Your task to perform on an android device: Open Youtube and go to the subscriptions tab Image 0: 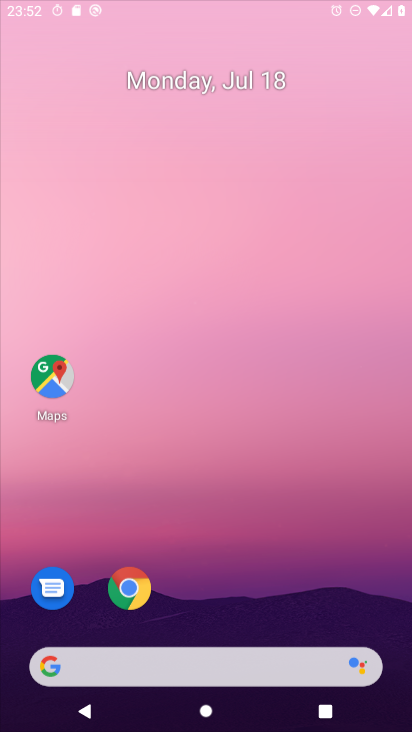
Step 0: click (318, 25)
Your task to perform on an android device: Open Youtube and go to the subscriptions tab Image 1: 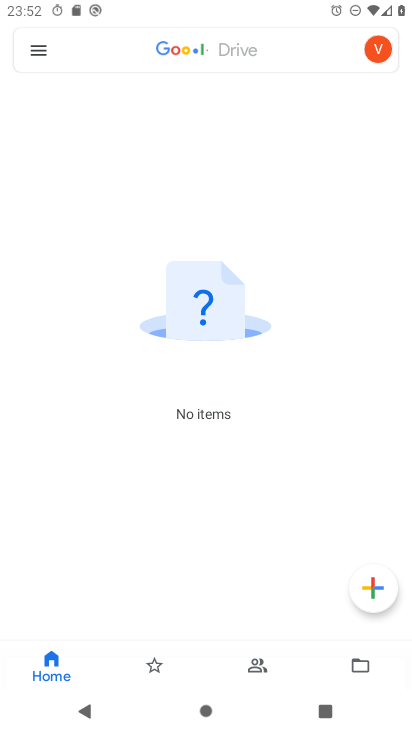
Step 1: drag from (212, 662) to (354, 104)
Your task to perform on an android device: Open Youtube and go to the subscriptions tab Image 2: 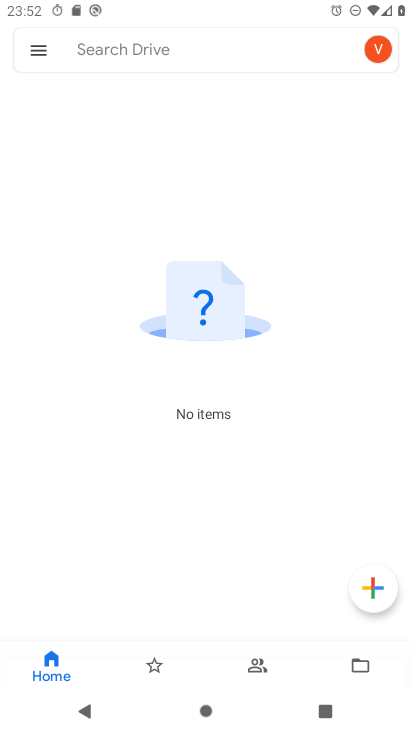
Step 2: press home button
Your task to perform on an android device: Open Youtube and go to the subscriptions tab Image 3: 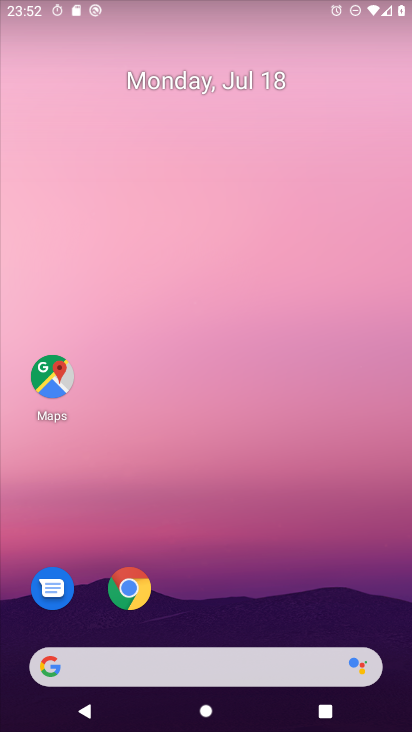
Step 3: drag from (182, 674) to (341, 107)
Your task to perform on an android device: Open Youtube and go to the subscriptions tab Image 4: 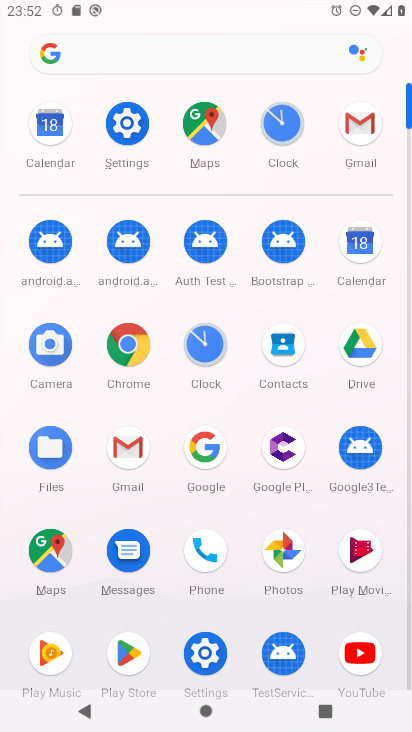
Step 4: click (359, 652)
Your task to perform on an android device: Open Youtube and go to the subscriptions tab Image 5: 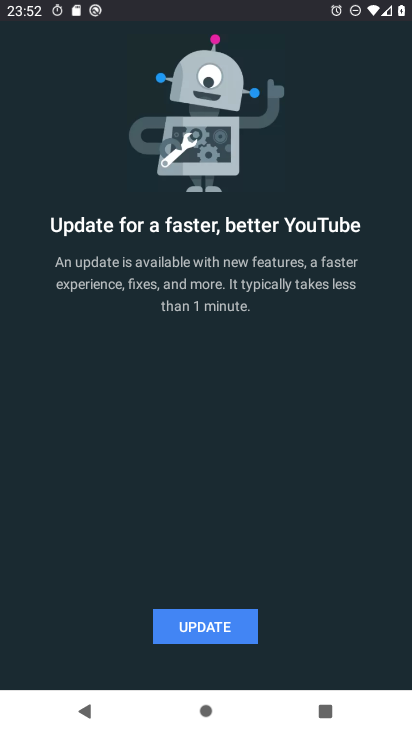
Step 5: click (221, 631)
Your task to perform on an android device: Open Youtube and go to the subscriptions tab Image 6: 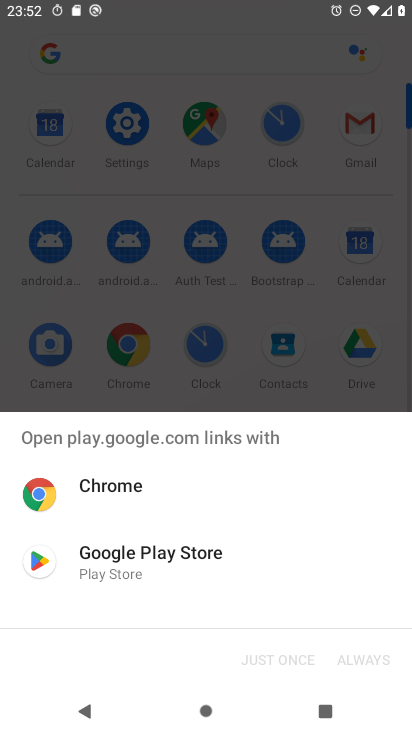
Step 6: click (147, 560)
Your task to perform on an android device: Open Youtube and go to the subscriptions tab Image 7: 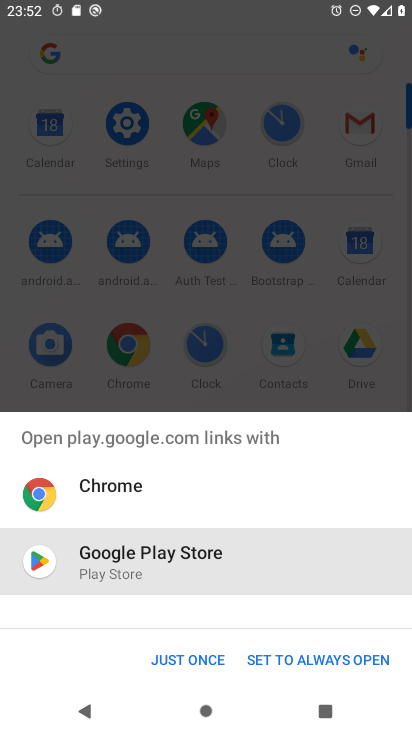
Step 7: click (178, 655)
Your task to perform on an android device: Open Youtube and go to the subscriptions tab Image 8: 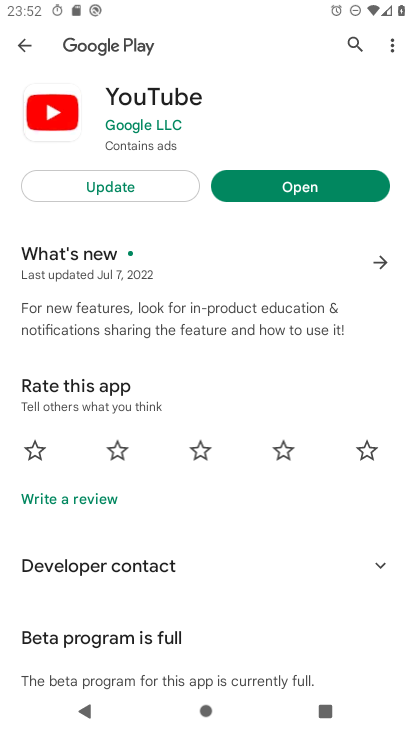
Step 8: click (137, 182)
Your task to perform on an android device: Open Youtube and go to the subscriptions tab Image 9: 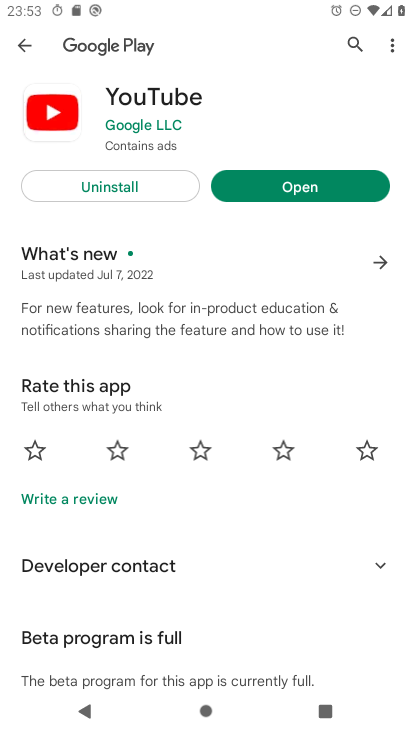
Step 9: click (309, 182)
Your task to perform on an android device: Open Youtube and go to the subscriptions tab Image 10: 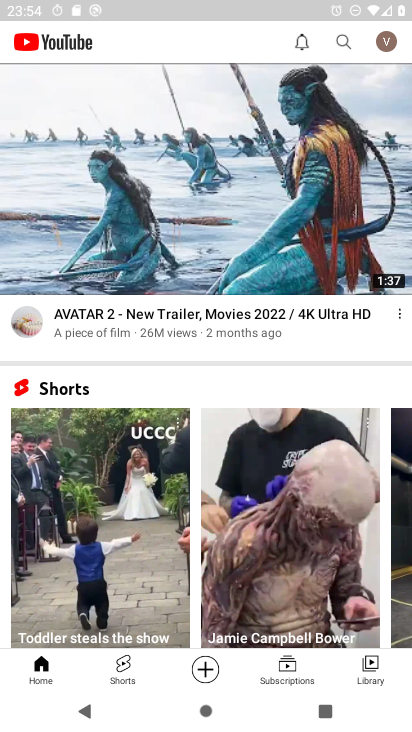
Step 10: click (288, 676)
Your task to perform on an android device: Open Youtube and go to the subscriptions tab Image 11: 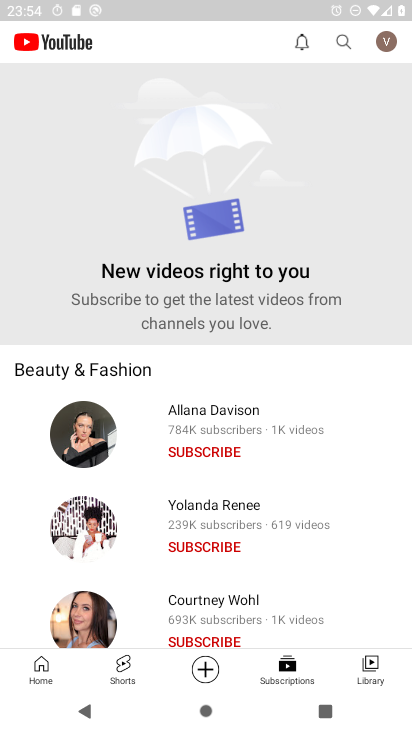
Step 11: task complete